Your task to perform on an android device: Open Chrome and go to settings Image 0: 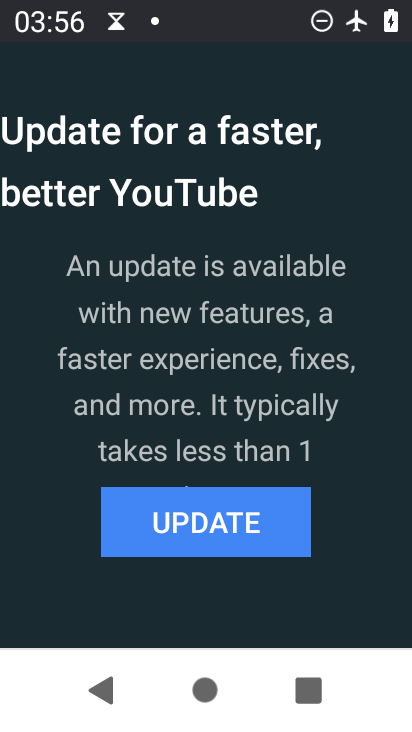
Step 0: press home button
Your task to perform on an android device: Open Chrome and go to settings Image 1: 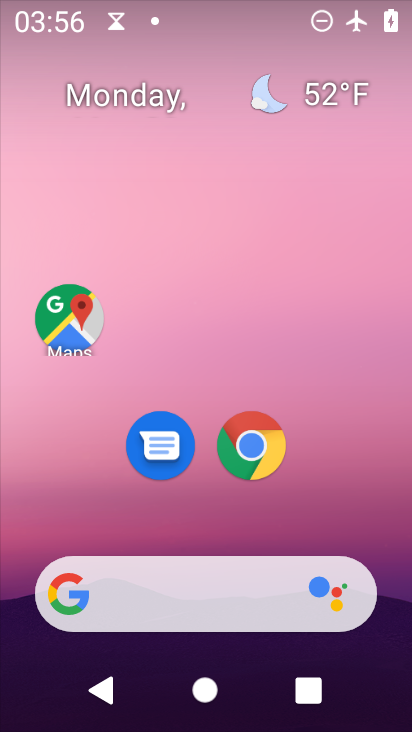
Step 1: click (245, 429)
Your task to perform on an android device: Open Chrome and go to settings Image 2: 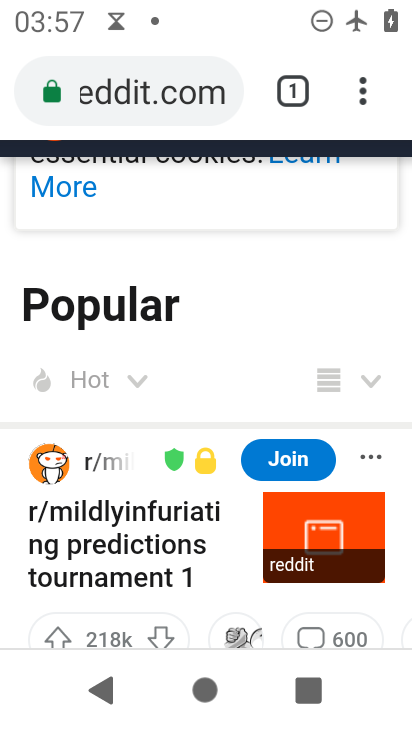
Step 2: click (364, 106)
Your task to perform on an android device: Open Chrome and go to settings Image 3: 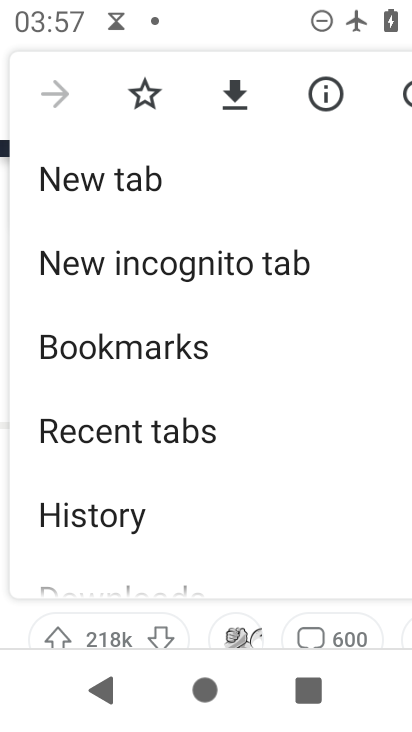
Step 3: drag from (163, 482) to (213, 0)
Your task to perform on an android device: Open Chrome and go to settings Image 4: 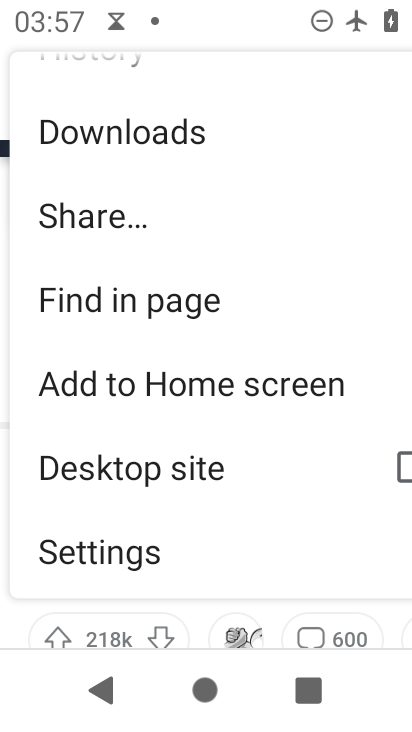
Step 4: click (92, 558)
Your task to perform on an android device: Open Chrome and go to settings Image 5: 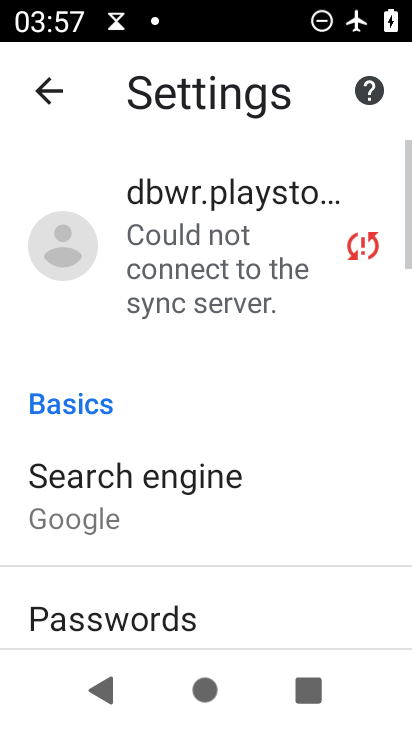
Step 5: task complete